Your task to perform on an android device: turn off wifi Image 0: 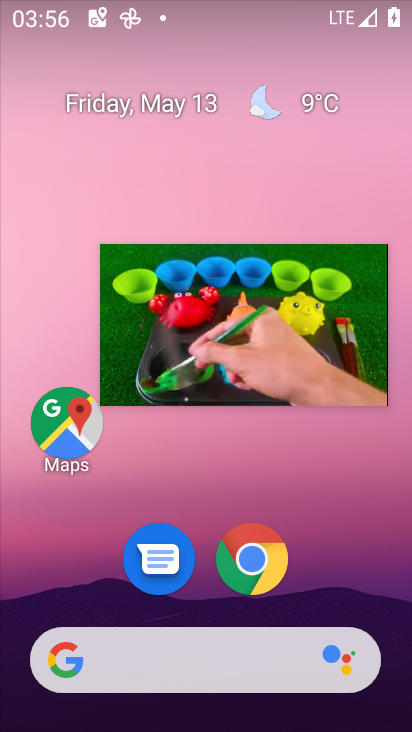
Step 0: drag from (395, 655) to (390, 357)
Your task to perform on an android device: turn off wifi Image 1: 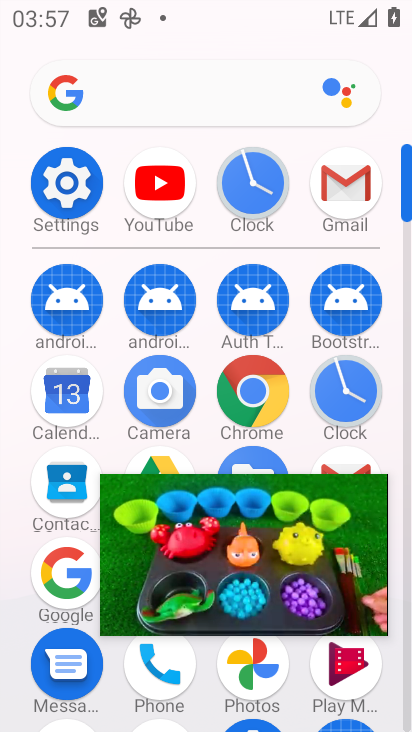
Step 1: click (49, 187)
Your task to perform on an android device: turn off wifi Image 2: 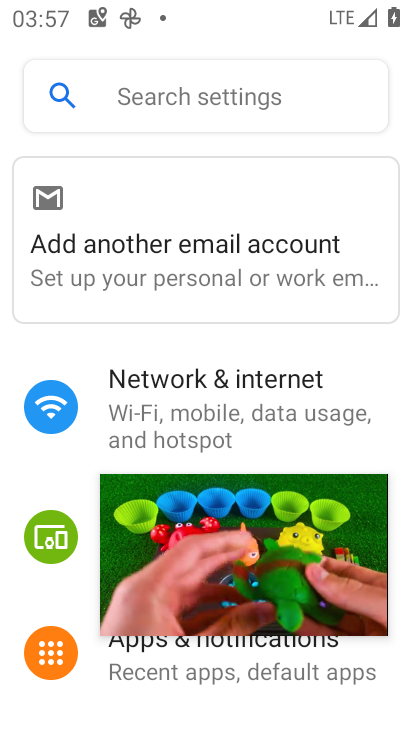
Step 2: click (263, 216)
Your task to perform on an android device: turn off wifi Image 3: 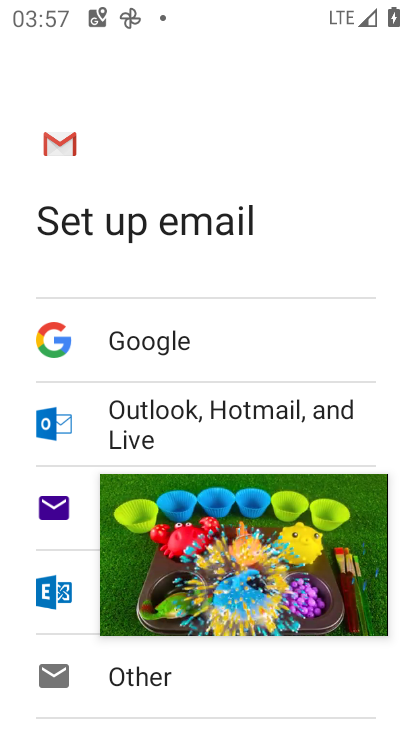
Step 3: press back button
Your task to perform on an android device: turn off wifi Image 4: 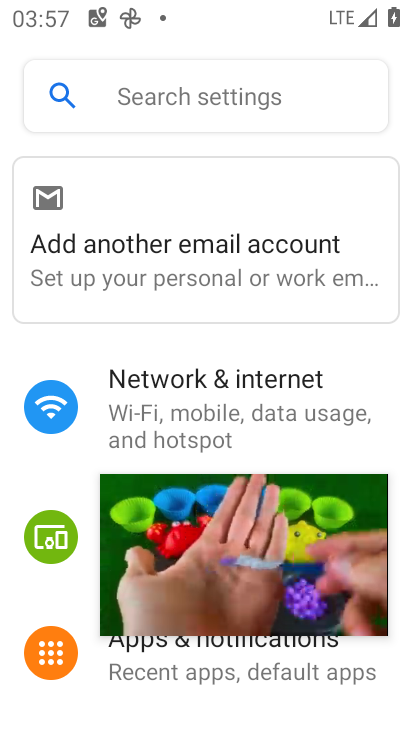
Step 4: press back button
Your task to perform on an android device: turn off wifi Image 5: 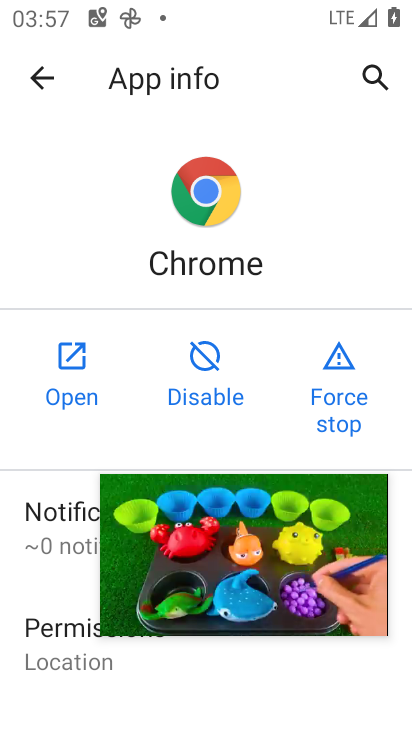
Step 5: press back button
Your task to perform on an android device: turn off wifi Image 6: 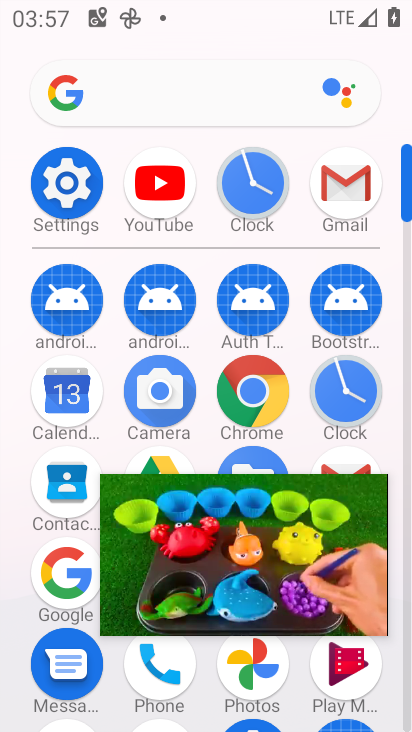
Step 6: press back button
Your task to perform on an android device: turn off wifi Image 7: 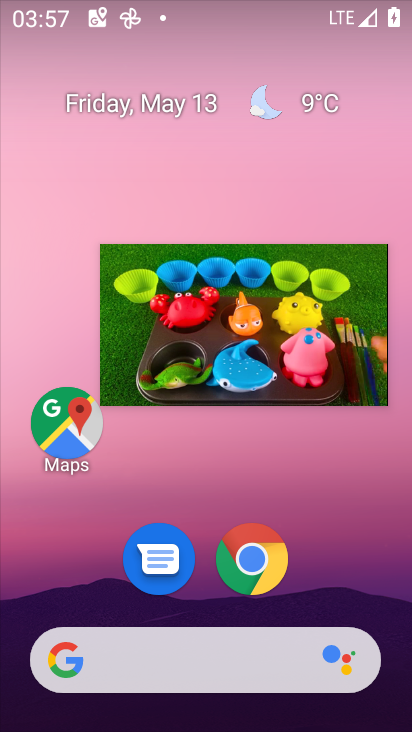
Step 7: drag from (391, 561) to (367, 328)
Your task to perform on an android device: turn off wifi Image 8: 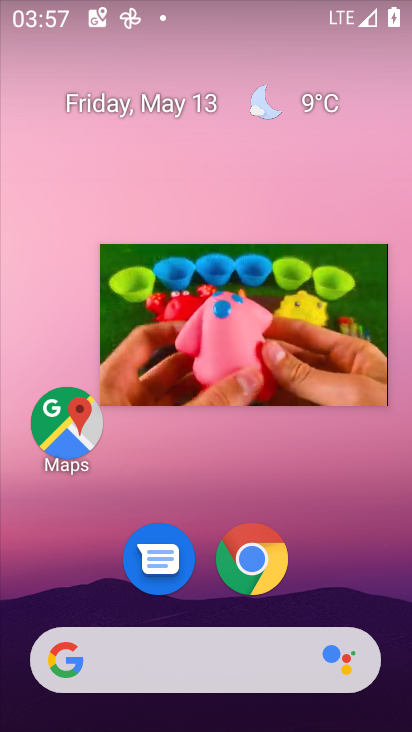
Step 8: drag from (399, 662) to (382, 247)
Your task to perform on an android device: turn off wifi Image 9: 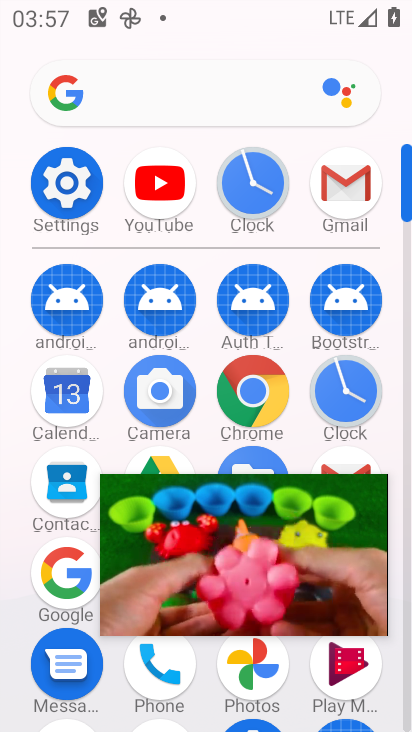
Step 9: click (67, 172)
Your task to perform on an android device: turn off wifi Image 10: 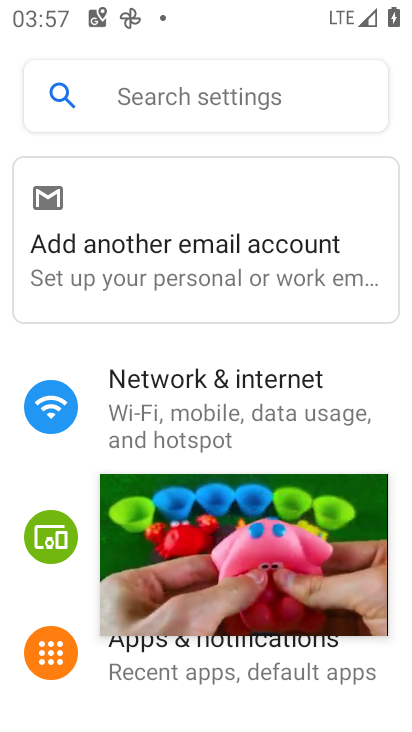
Step 10: click (181, 382)
Your task to perform on an android device: turn off wifi Image 11: 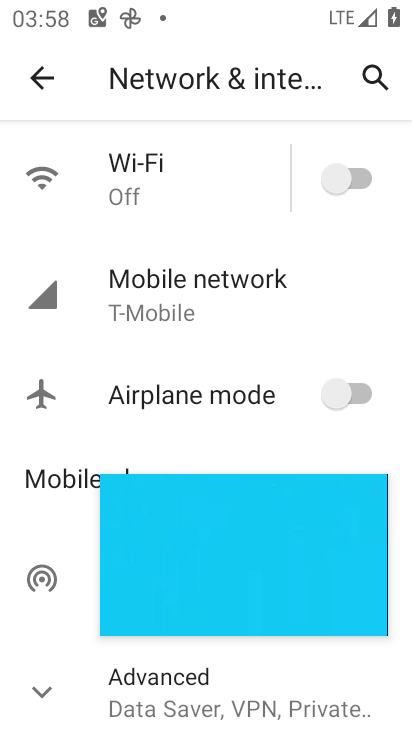
Step 11: task complete